Your task to perform on an android device: Open Google Maps Image 0: 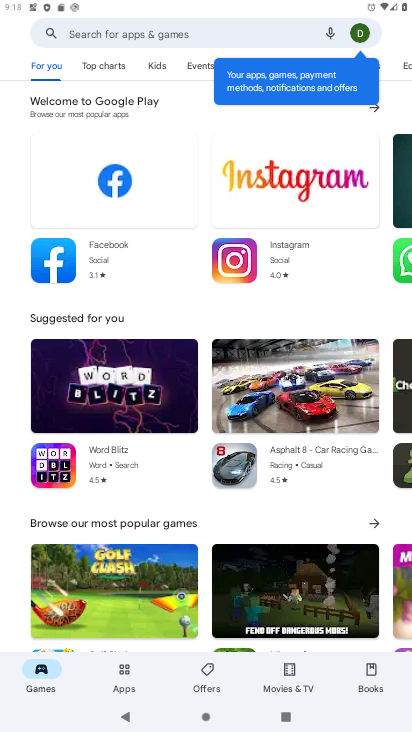
Step 0: press home button
Your task to perform on an android device: Open Google Maps Image 1: 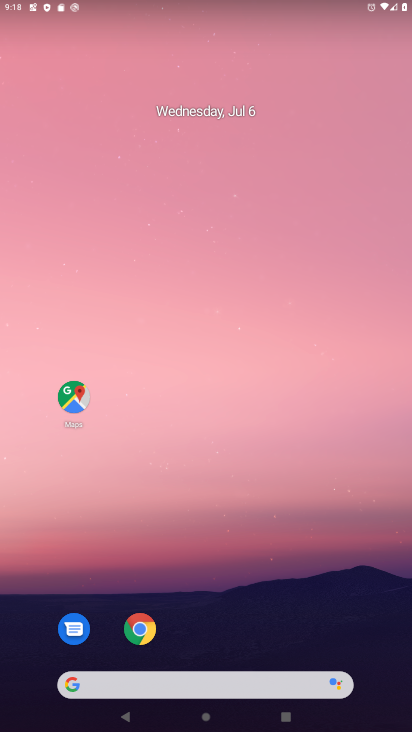
Step 1: drag from (35, 589) to (269, 193)
Your task to perform on an android device: Open Google Maps Image 2: 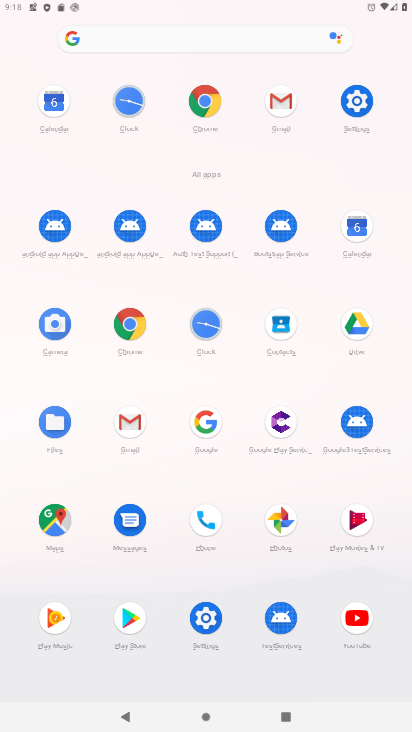
Step 2: click (49, 532)
Your task to perform on an android device: Open Google Maps Image 3: 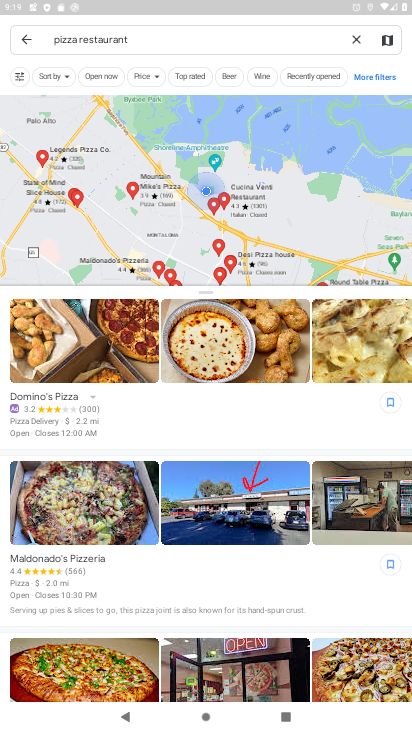
Step 3: task complete